Your task to perform on an android device: toggle translation in the chrome app Image 0: 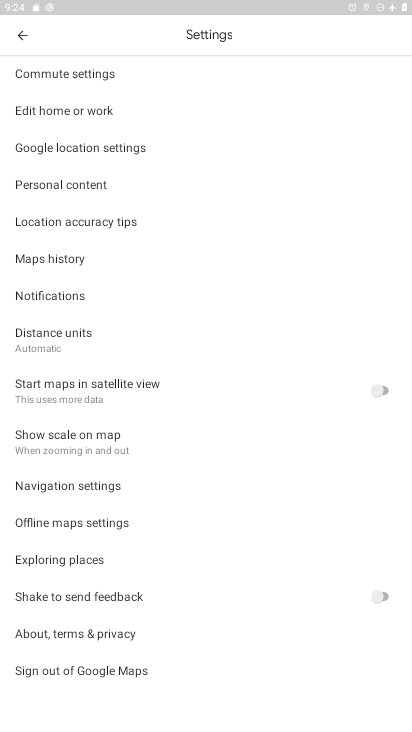
Step 0: press home button
Your task to perform on an android device: toggle translation in the chrome app Image 1: 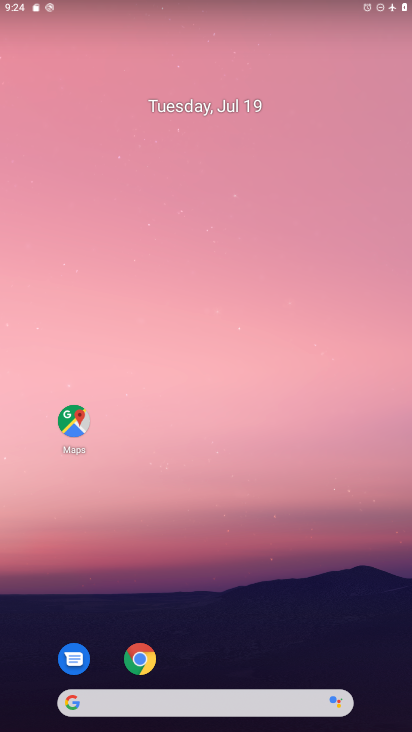
Step 1: click (151, 659)
Your task to perform on an android device: toggle translation in the chrome app Image 2: 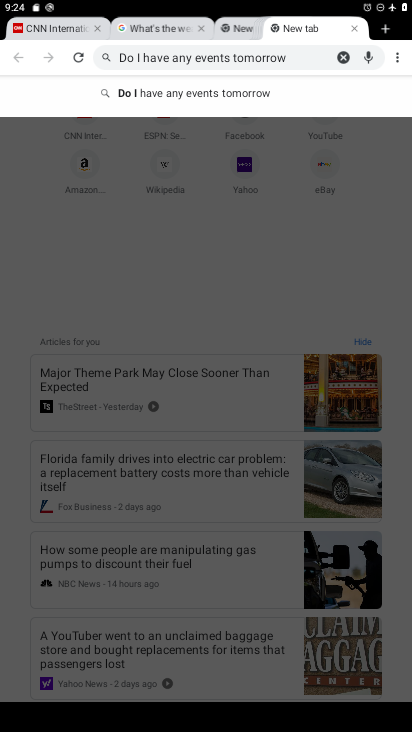
Step 2: click (401, 48)
Your task to perform on an android device: toggle translation in the chrome app Image 3: 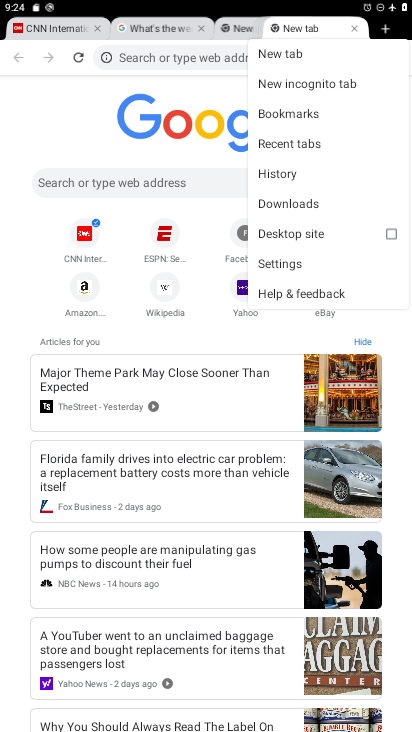
Step 3: click (285, 258)
Your task to perform on an android device: toggle translation in the chrome app Image 4: 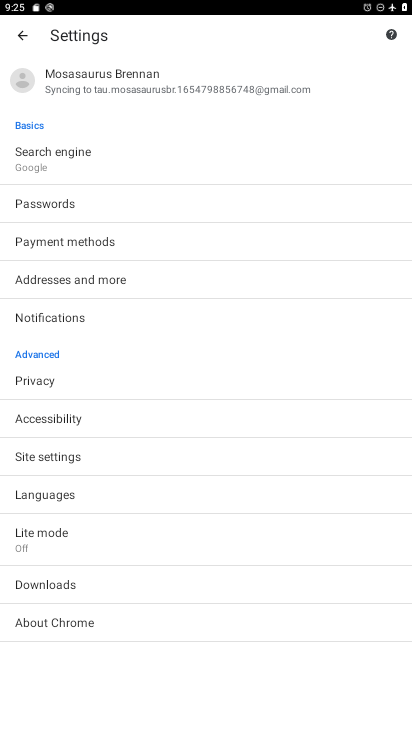
Step 4: click (87, 499)
Your task to perform on an android device: toggle translation in the chrome app Image 5: 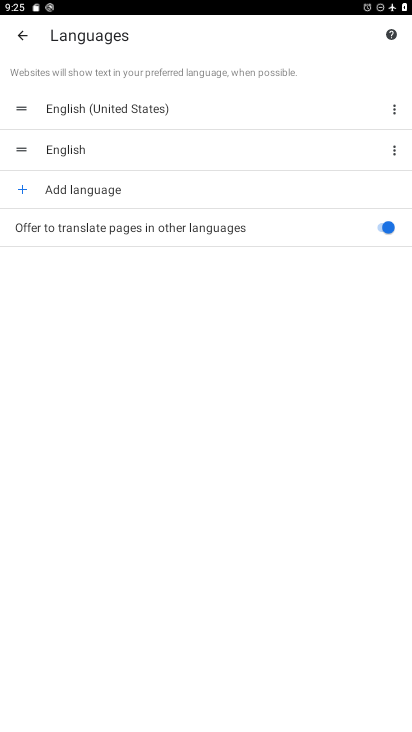
Step 5: click (383, 224)
Your task to perform on an android device: toggle translation in the chrome app Image 6: 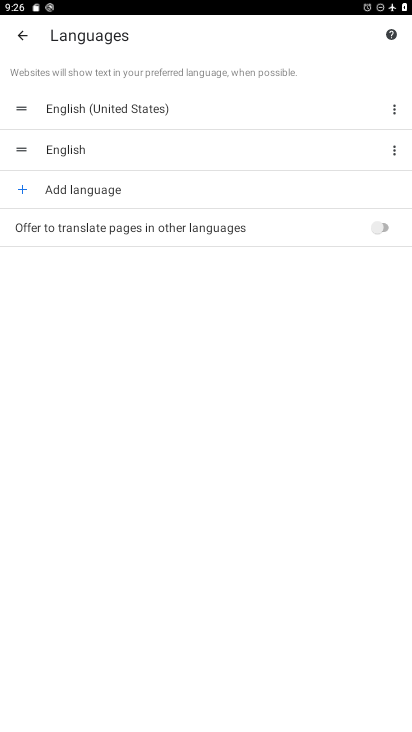
Step 6: task complete